Your task to perform on an android device: toggle priority inbox in the gmail app Image 0: 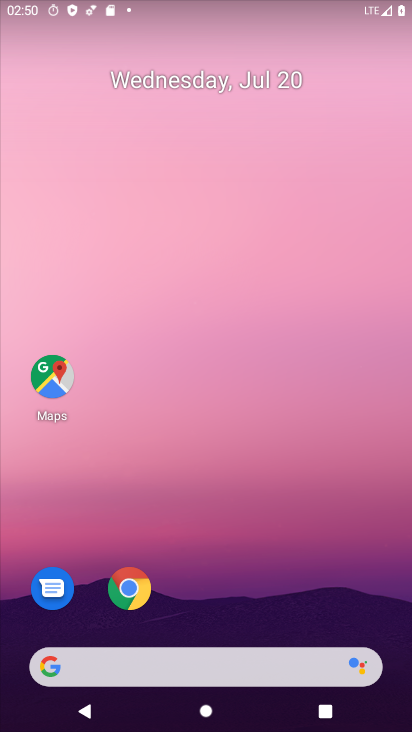
Step 0: drag from (182, 583) to (186, 206)
Your task to perform on an android device: toggle priority inbox in the gmail app Image 1: 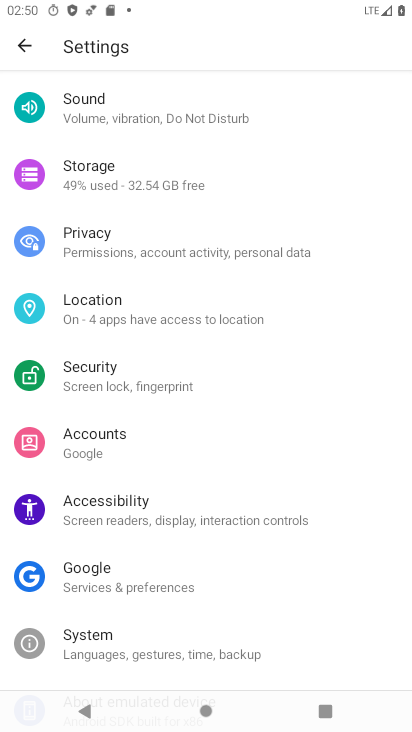
Step 1: press home button
Your task to perform on an android device: toggle priority inbox in the gmail app Image 2: 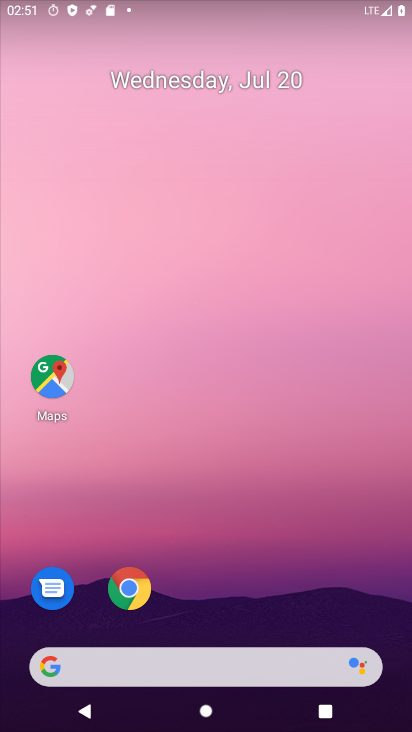
Step 2: drag from (191, 622) to (167, 286)
Your task to perform on an android device: toggle priority inbox in the gmail app Image 3: 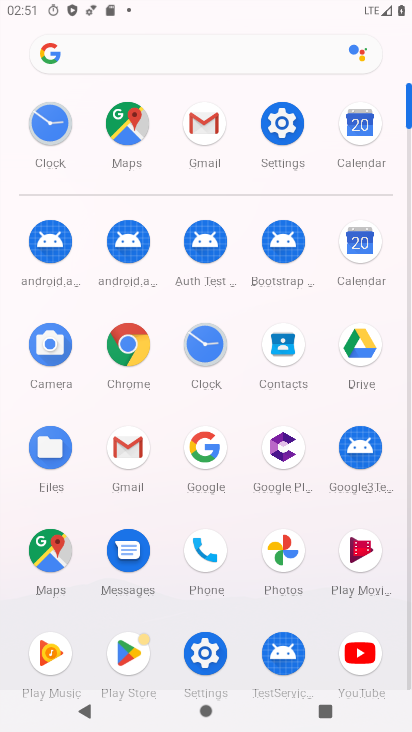
Step 3: click (132, 456)
Your task to perform on an android device: toggle priority inbox in the gmail app Image 4: 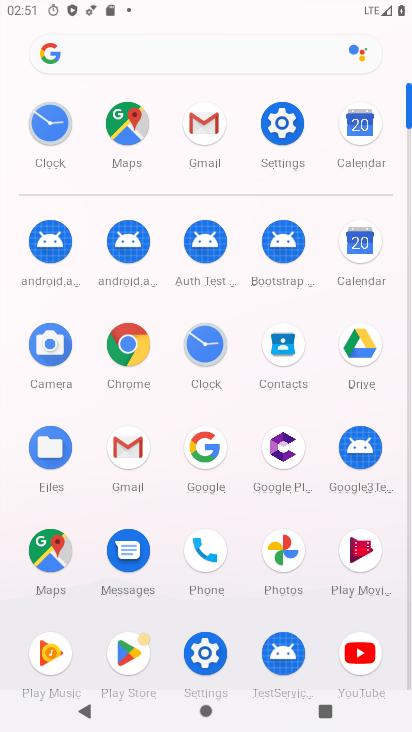
Step 4: click (132, 456)
Your task to perform on an android device: toggle priority inbox in the gmail app Image 5: 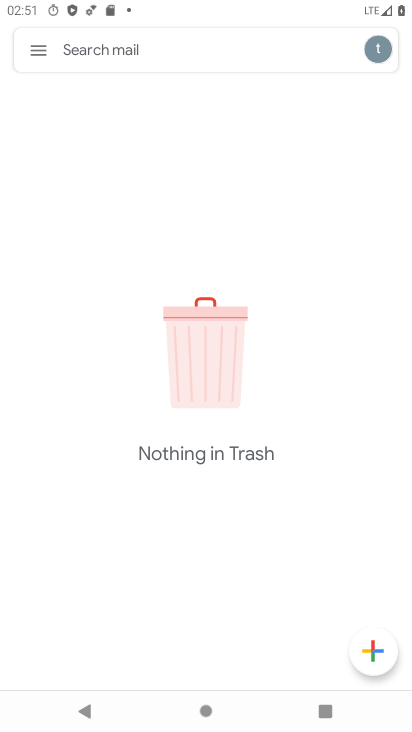
Step 5: click (40, 54)
Your task to perform on an android device: toggle priority inbox in the gmail app Image 6: 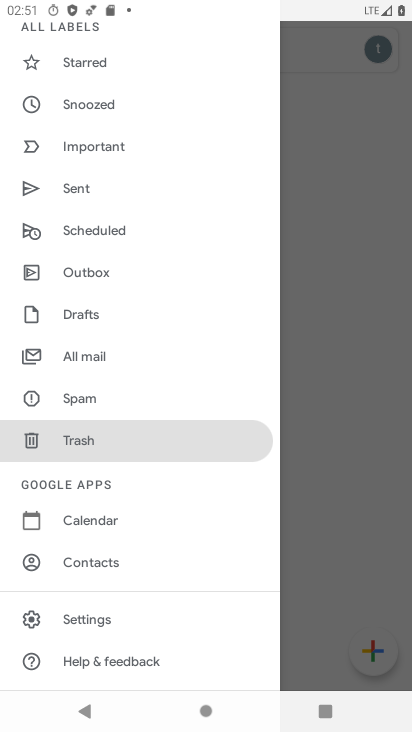
Step 6: click (88, 620)
Your task to perform on an android device: toggle priority inbox in the gmail app Image 7: 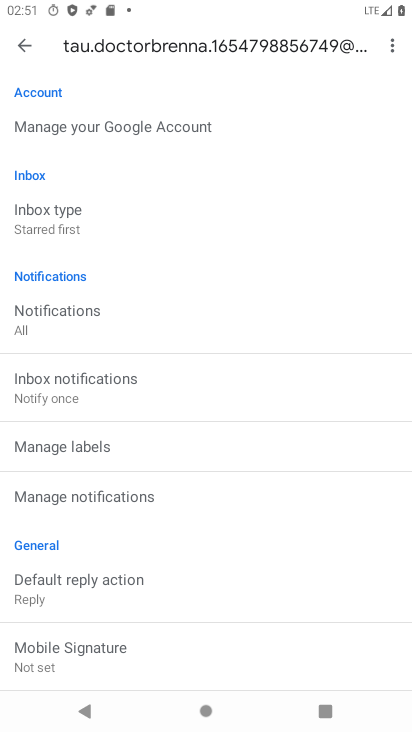
Step 7: click (99, 232)
Your task to perform on an android device: toggle priority inbox in the gmail app Image 8: 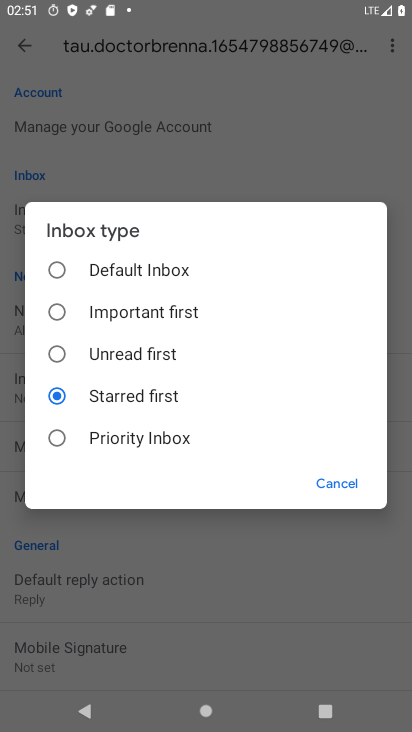
Step 8: click (87, 438)
Your task to perform on an android device: toggle priority inbox in the gmail app Image 9: 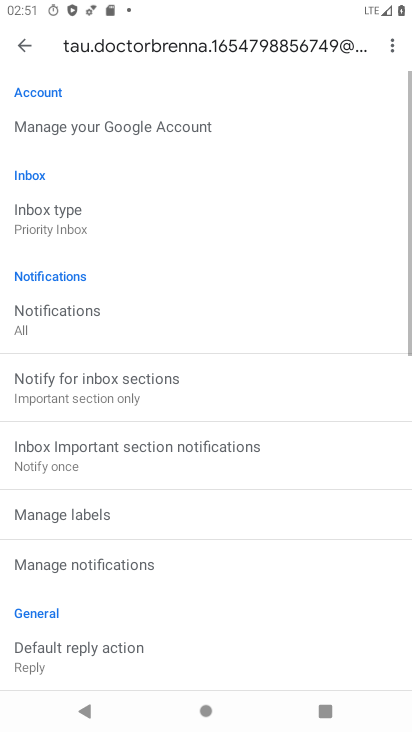
Step 9: task complete